Your task to perform on an android device: check out phone information Image 0: 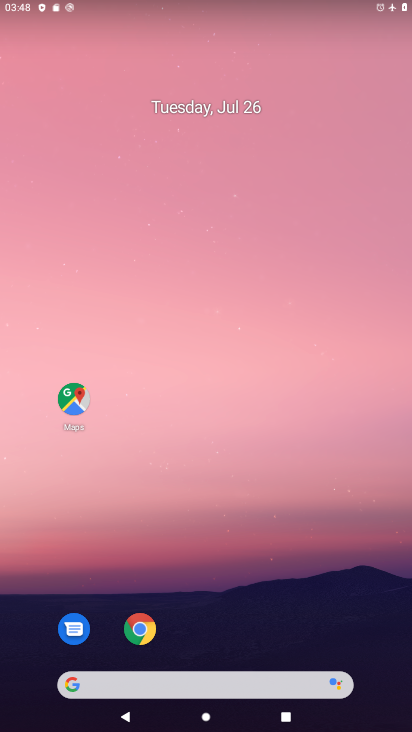
Step 0: drag from (261, 552) to (273, 79)
Your task to perform on an android device: check out phone information Image 1: 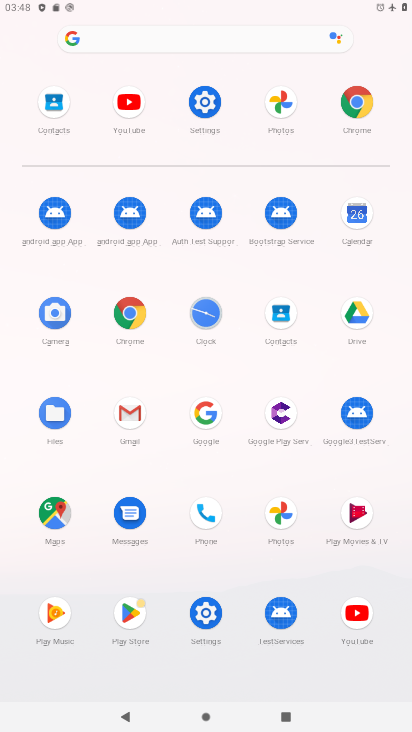
Step 1: click (205, 505)
Your task to perform on an android device: check out phone information Image 2: 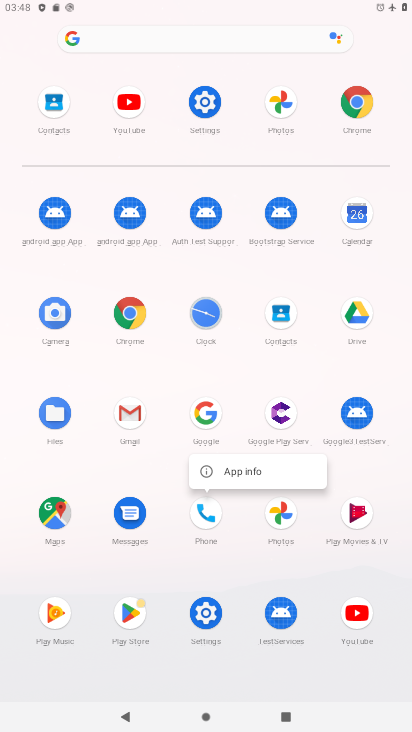
Step 2: click (235, 478)
Your task to perform on an android device: check out phone information Image 3: 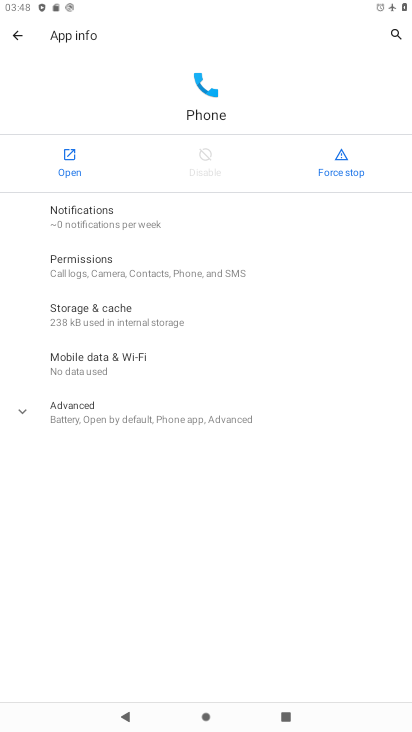
Step 3: task complete